Your task to perform on an android device: What's the weather going to be this weekend? Image 0: 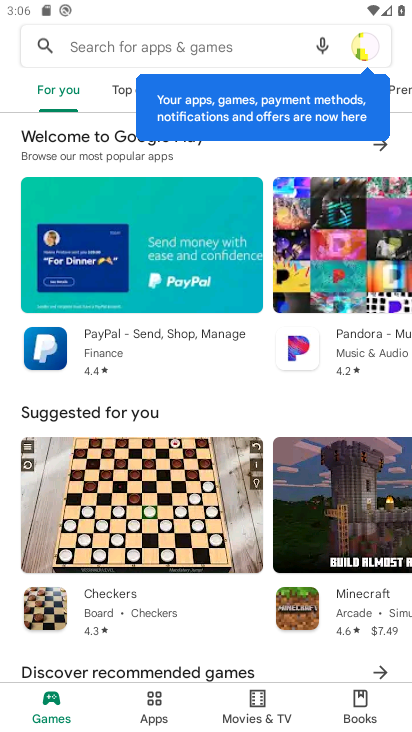
Step 0: press home button
Your task to perform on an android device: What's the weather going to be this weekend? Image 1: 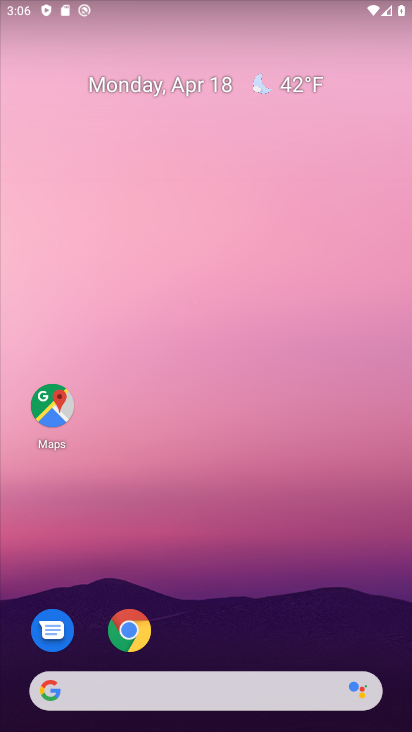
Step 1: drag from (310, 528) to (324, 268)
Your task to perform on an android device: What's the weather going to be this weekend? Image 2: 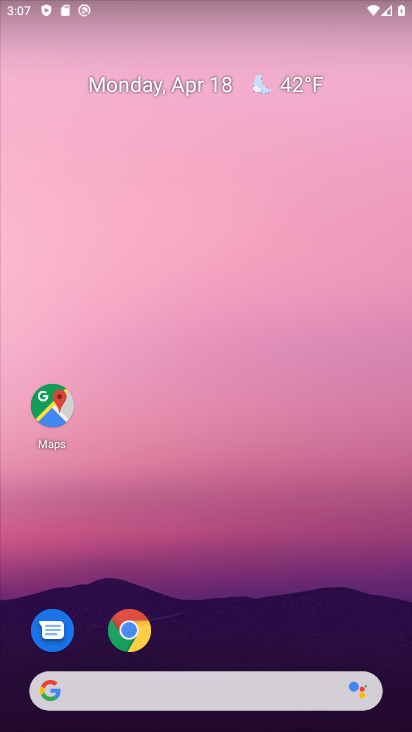
Step 2: drag from (234, 604) to (258, 251)
Your task to perform on an android device: What's the weather going to be this weekend? Image 3: 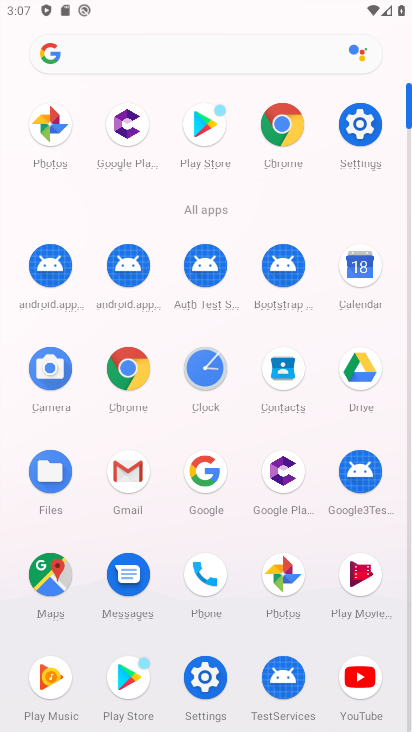
Step 3: click (278, 112)
Your task to perform on an android device: What's the weather going to be this weekend? Image 4: 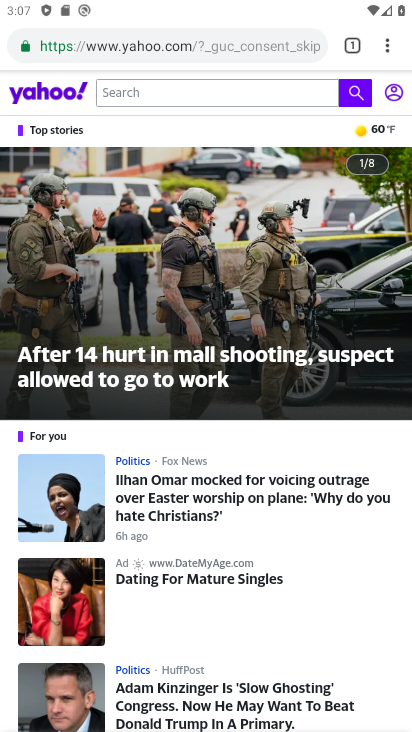
Step 4: click (379, 39)
Your task to perform on an android device: What's the weather going to be this weekend? Image 5: 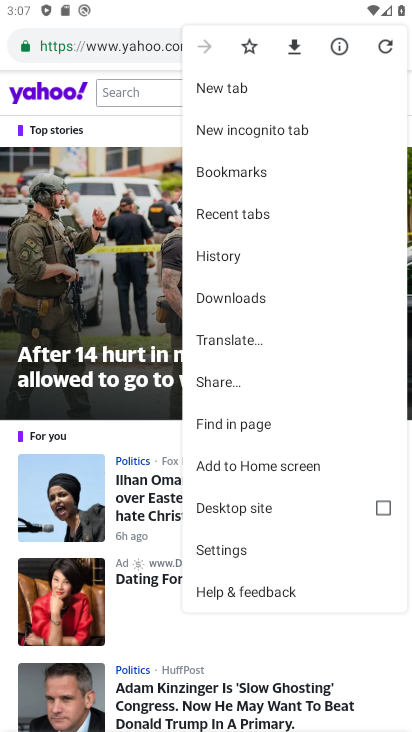
Step 5: click (315, 92)
Your task to perform on an android device: What's the weather going to be this weekend? Image 6: 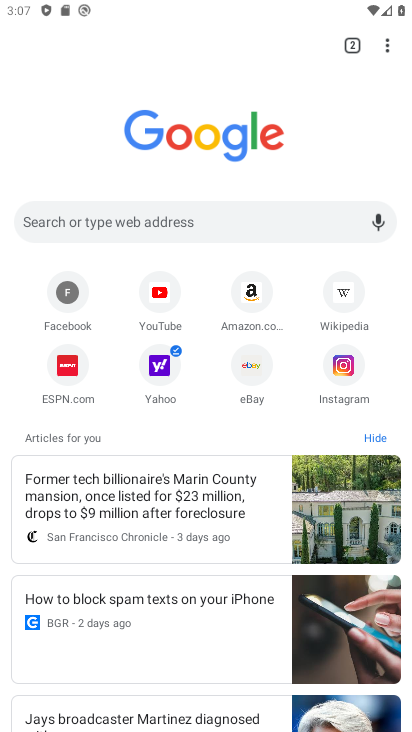
Step 6: click (248, 207)
Your task to perform on an android device: What's the weather going to be this weekend? Image 7: 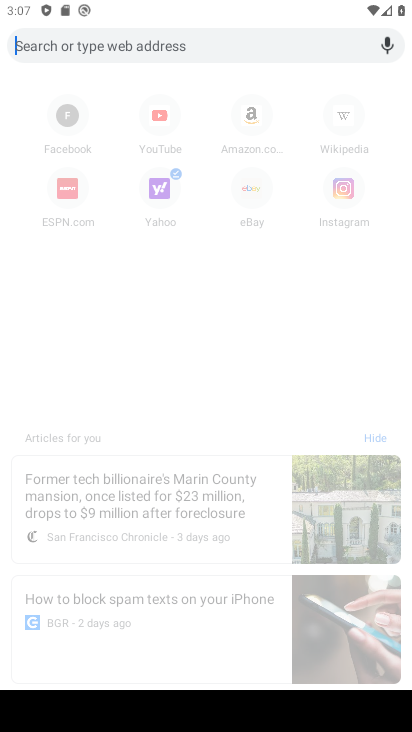
Step 7: type "What's the weather going to be this weekend?"
Your task to perform on an android device: What's the weather going to be this weekend? Image 8: 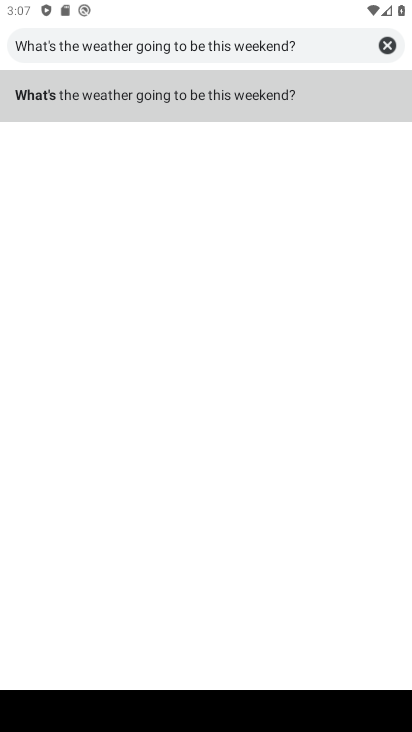
Step 8: click (239, 95)
Your task to perform on an android device: What's the weather going to be this weekend? Image 9: 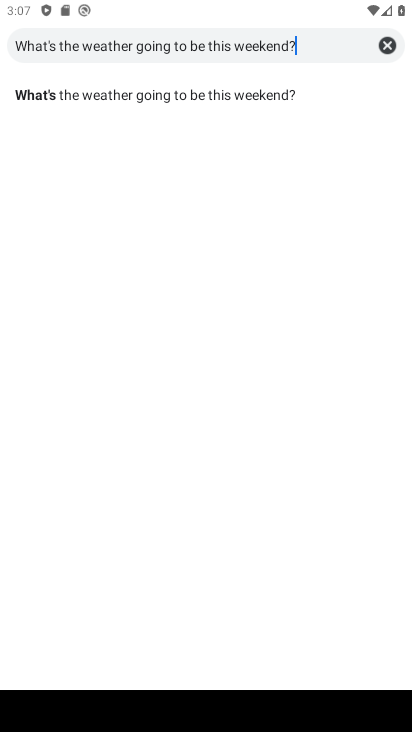
Step 9: click (87, 91)
Your task to perform on an android device: What's the weather going to be this weekend? Image 10: 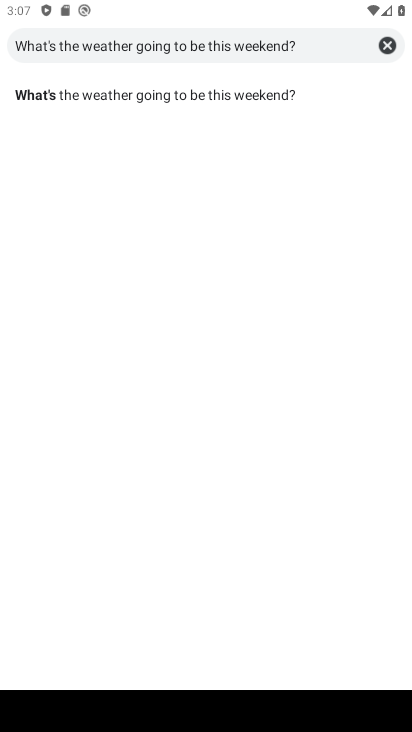
Step 10: click (87, 92)
Your task to perform on an android device: What's the weather going to be this weekend? Image 11: 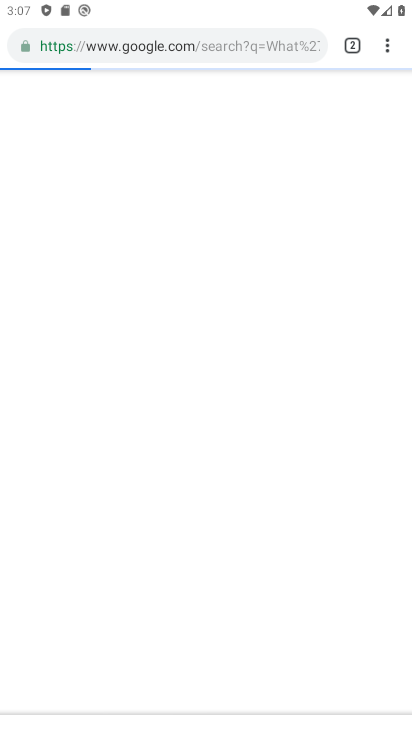
Step 11: click (82, 95)
Your task to perform on an android device: What's the weather going to be this weekend? Image 12: 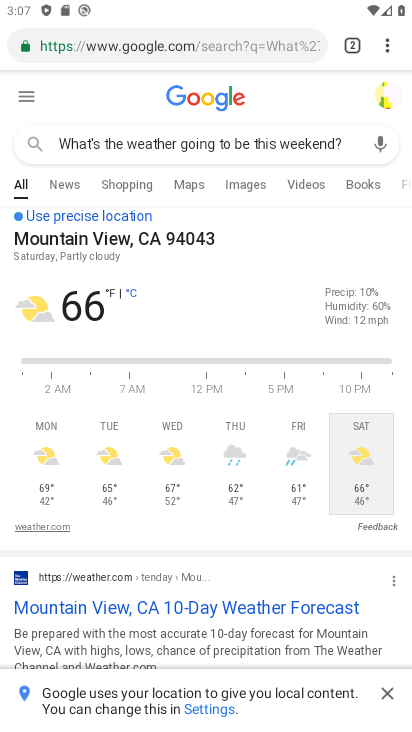
Step 12: task complete